Your task to perform on an android device: What's the weather going to be tomorrow? Image 0: 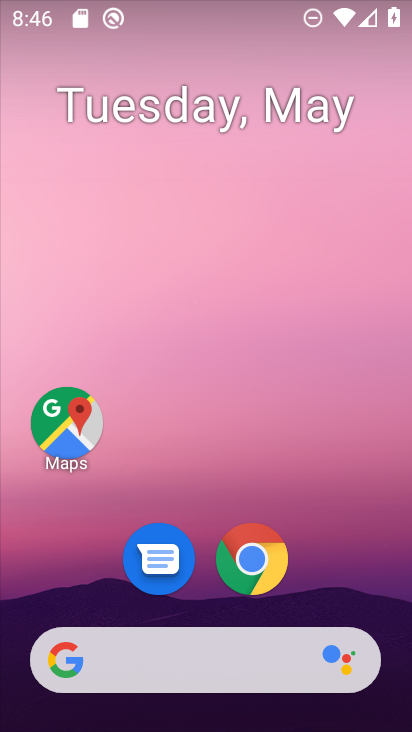
Step 0: click (148, 656)
Your task to perform on an android device: What's the weather going to be tomorrow? Image 1: 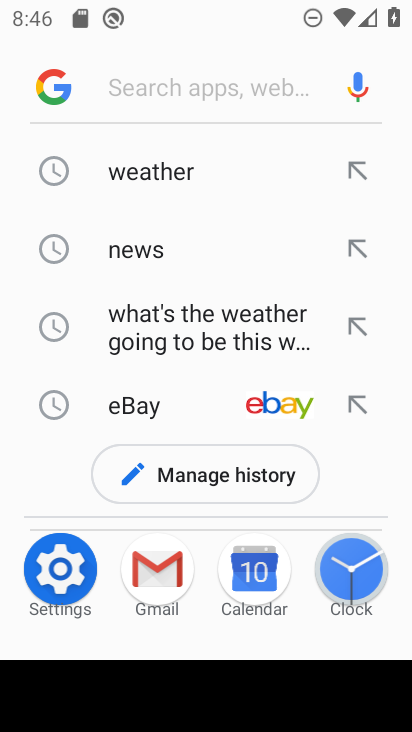
Step 1: click (149, 175)
Your task to perform on an android device: What's the weather going to be tomorrow? Image 2: 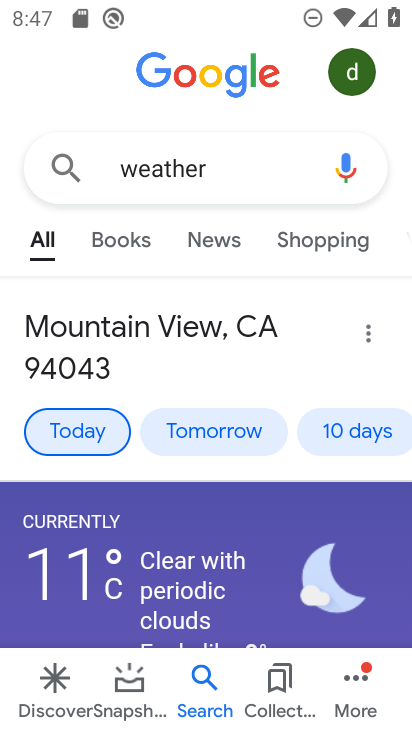
Step 2: click (222, 420)
Your task to perform on an android device: What's the weather going to be tomorrow? Image 3: 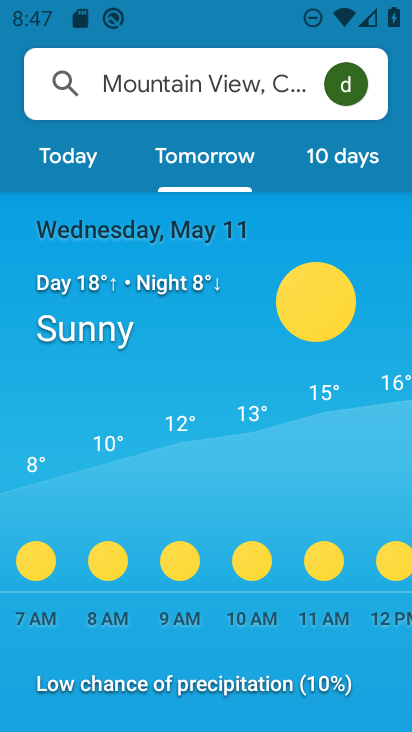
Step 3: task complete